Your task to perform on an android device: Do I have any events today? Image 0: 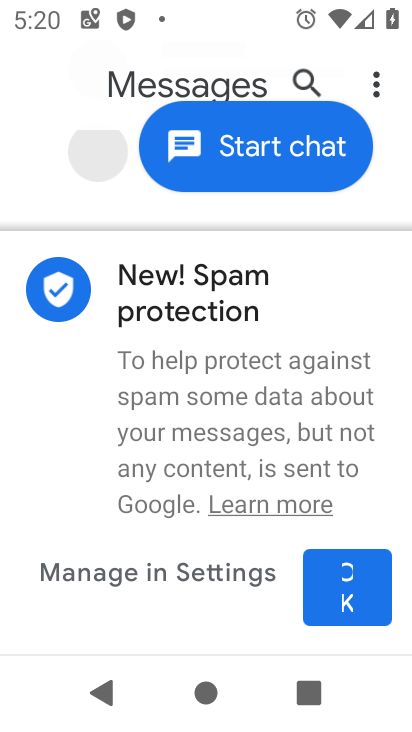
Step 0: press home button
Your task to perform on an android device: Do I have any events today? Image 1: 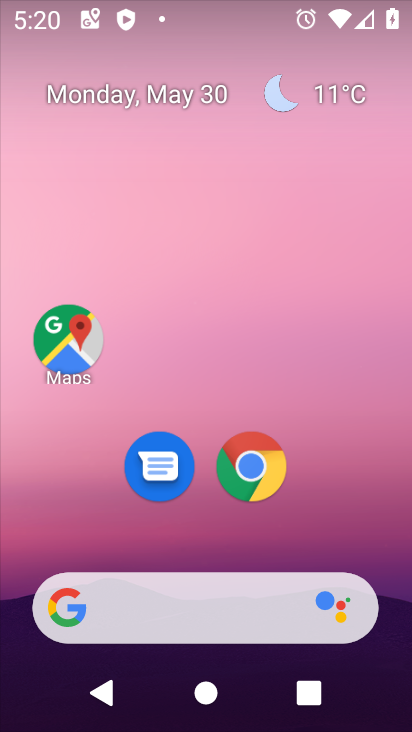
Step 1: drag from (382, 496) to (245, 63)
Your task to perform on an android device: Do I have any events today? Image 2: 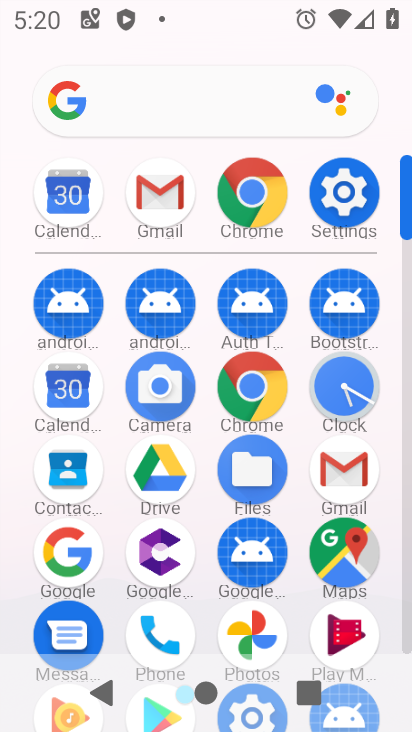
Step 2: click (59, 380)
Your task to perform on an android device: Do I have any events today? Image 3: 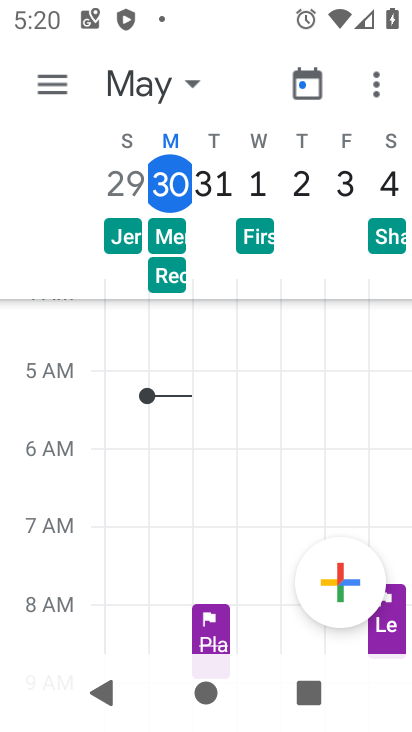
Step 3: task complete